Your task to perform on an android device: Look up the best rated Nike shoes on Nike.com Image 0: 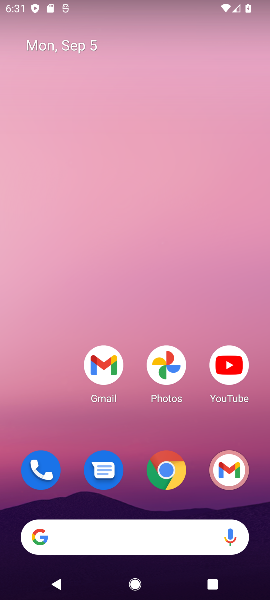
Step 0: click (141, 528)
Your task to perform on an android device: Look up the best rated Nike shoes on Nike.com Image 1: 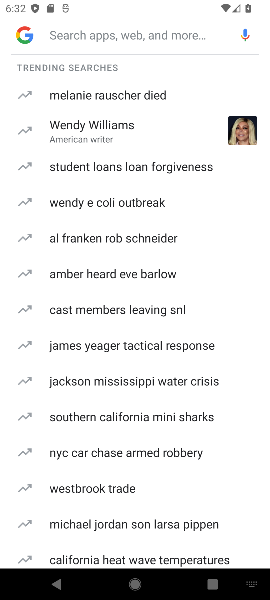
Step 1: type "nike.com"
Your task to perform on an android device: Look up the best rated Nike shoes on Nike.com Image 2: 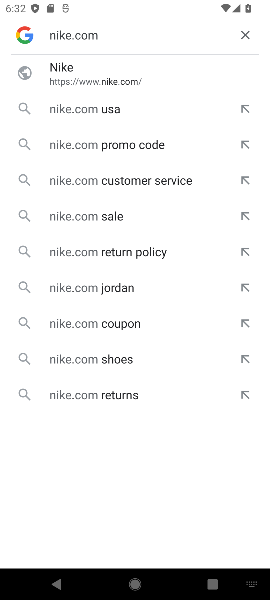
Step 2: click (65, 74)
Your task to perform on an android device: Look up the best rated Nike shoes on Nike.com Image 3: 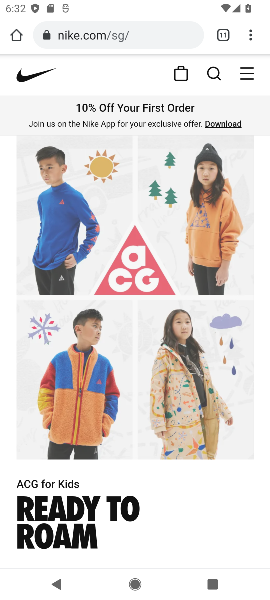
Step 3: click (212, 71)
Your task to perform on an android device: Look up the best rated Nike shoes on Nike.com Image 4: 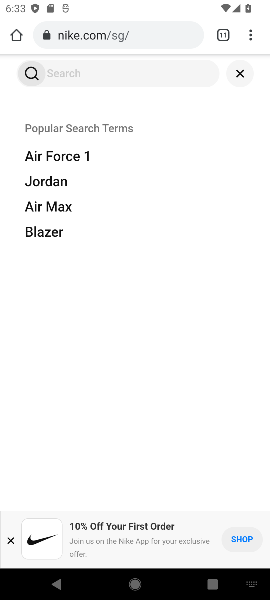
Step 4: type "best rated nike shoes"
Your task to perform on an android device: Look up the best rated Nike shoes on Nike.com Image 5: 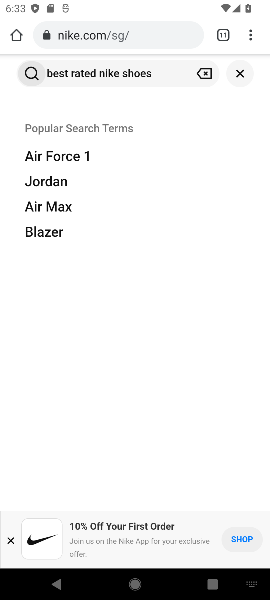
Step 5: click (29, 73)
Your task to perform on an android device: Look up the best rated Nike shoes on Nike.com Image 6: 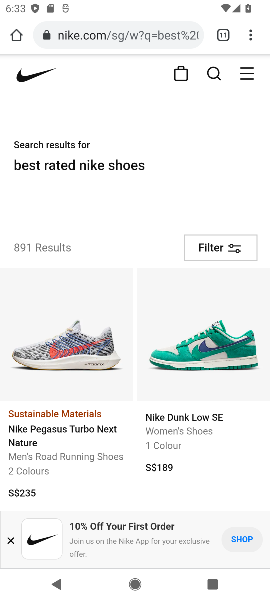
Step 6: task complete